Your task to perform on an android device: set the stopwatch Image 0: 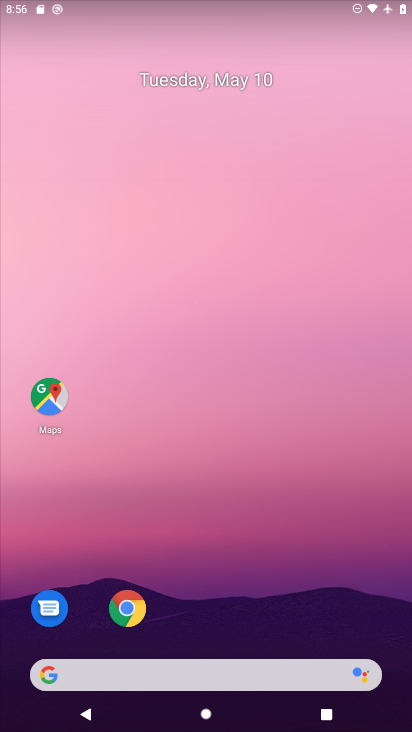
Step 0: drag from (280, 524) to (267, 290)
Your task to perform on an android device: set the stopwatch Image 1: 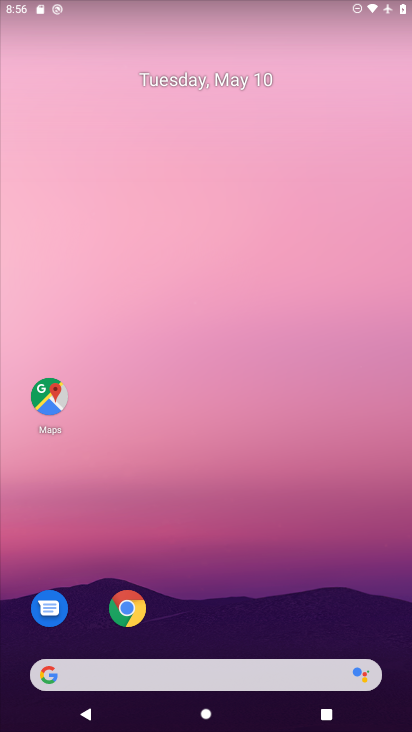
Step 1: drag from (217, 608) to (268, 197)
Your task to perform on an android device: set the stopwatch Image 2: 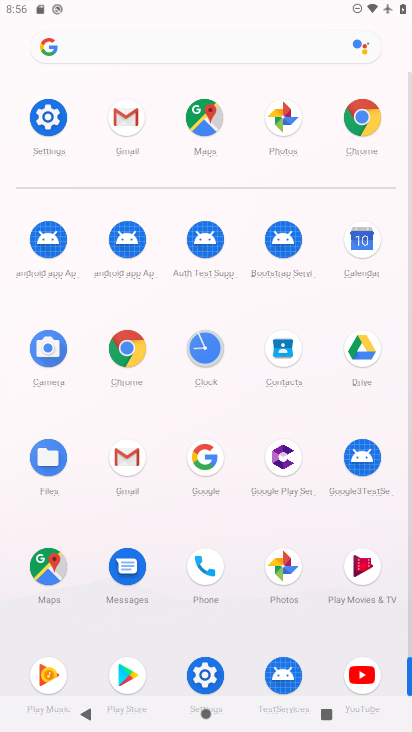
Step 2: click (202, 347)
Your task to perform on an android device: set the stopwatch Image 3: 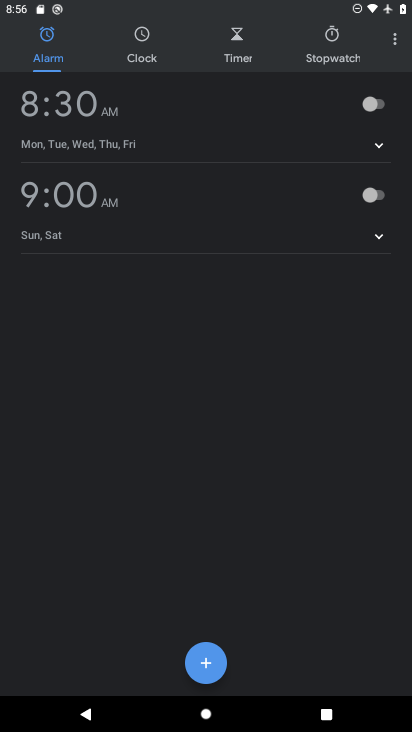
Step 3: click (334, 47)
Your task to perform on an android device: set the stopwatch Image 4: 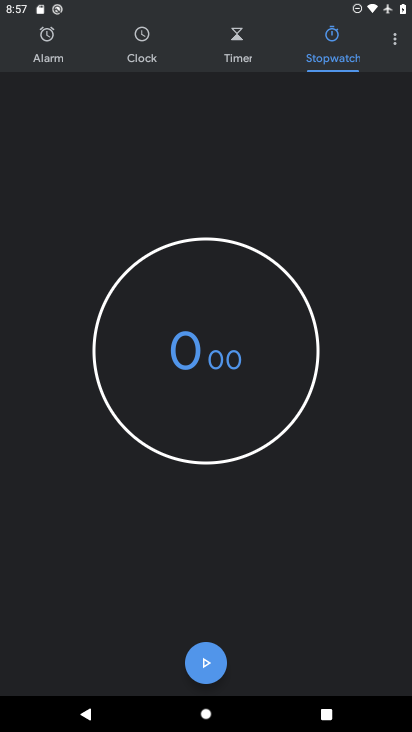
Step 4: task complete